Your task to perform on an android device: Open the calendar and show me this week's events? Image 0: 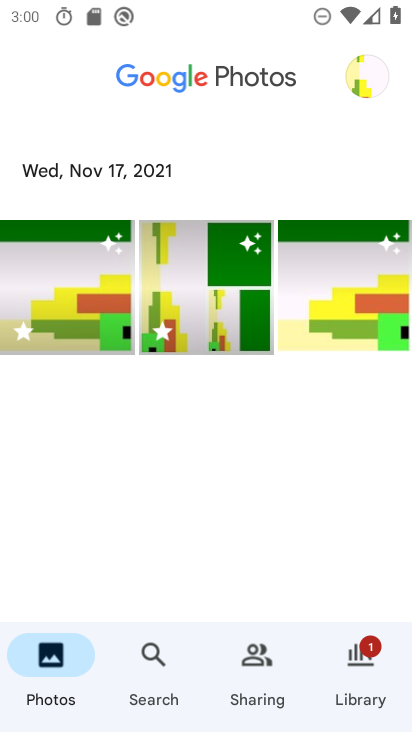
Step 0: drag from (168, 484) to (303, 256)
Your task to perform on an android device: Open the calendar and show me this week's events? Image 1: 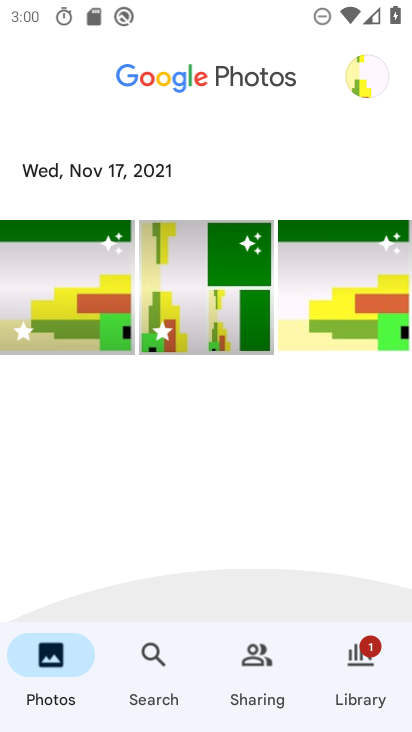
Step 1: drag from (314, 179) to (317, 658)
Your task to perform on an android device: Open the calendar and show me this week's events? Image 2: 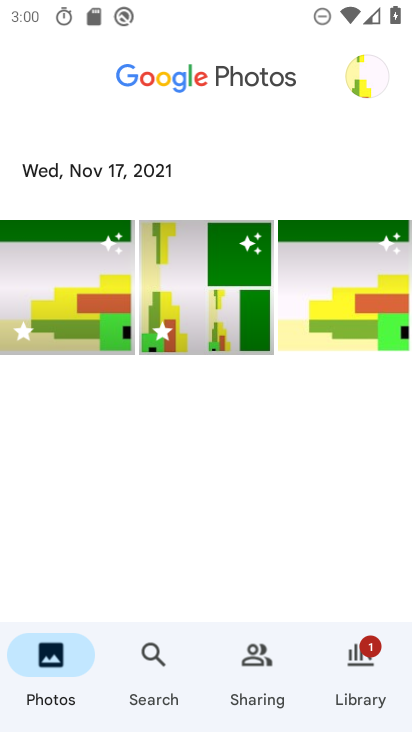
Step 2: press home button
Your task to perform on an android device: Open the calendar and show me this week's events? Image 3: 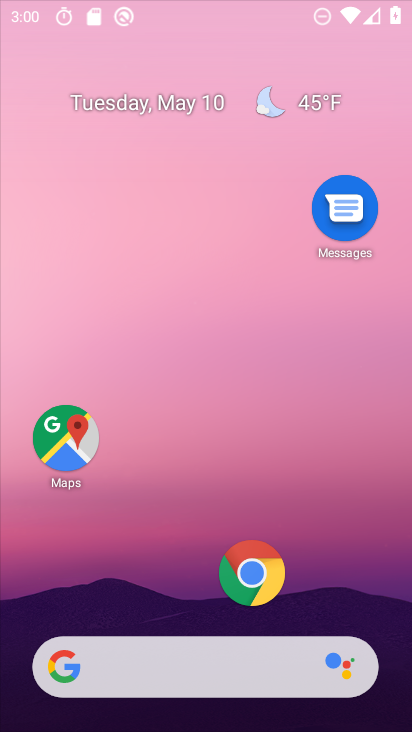
Step 3: drag from (183, 616) to (206, 291)
Your task to perform on an android device: Open the calendar and show me this week's events? Image 4: 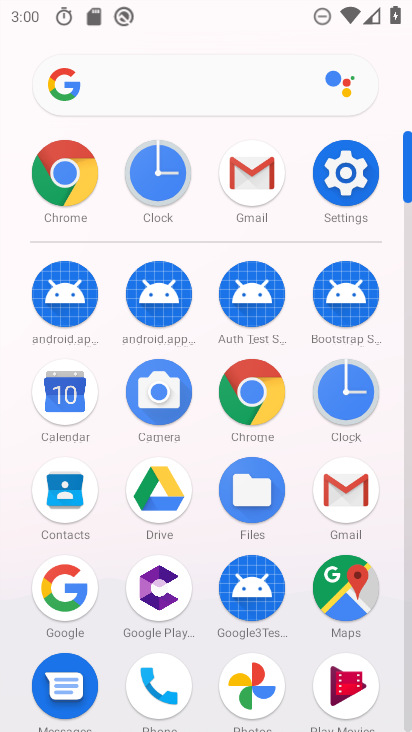
Step 4: click (69, 387)
Your task to perform on an android device: Open the calendar and show me this week's events? Image 5: 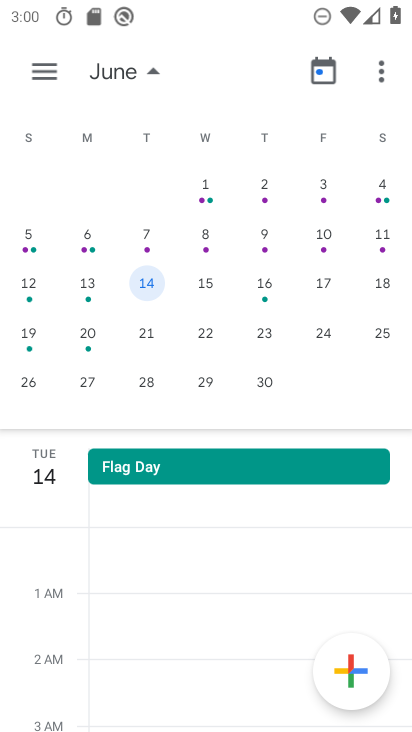
Step 5: drag from (210, 603) to (261, 294)
Your task to perform on an android device: Open the calendar and show me this week's events? Image 6: 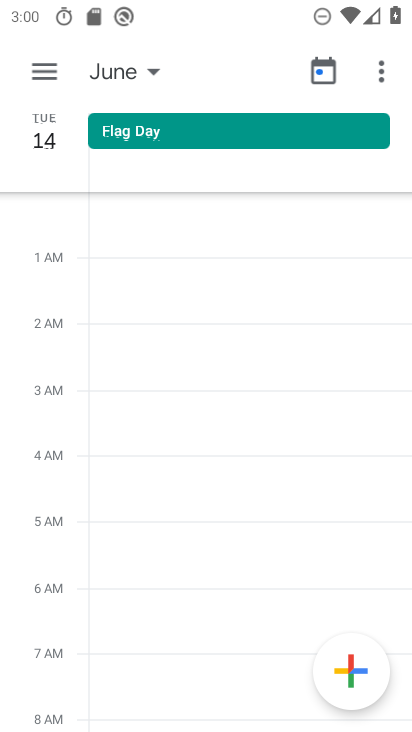
Step 6: drag from (163, 583) to (195, 346)
Your task to perform on an android device: Open the calendar and show me this week's events? Image 7: 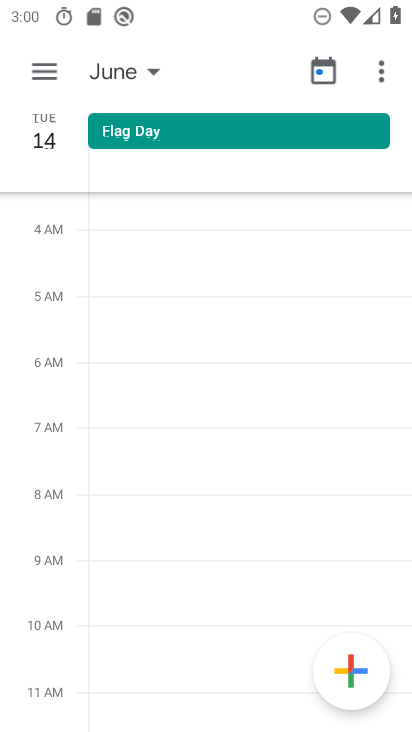
Step 7: drag from (201, 255) to (250, 708)
Your task to perform on an android device: Open the calendar and show me this week's events? Image 8: 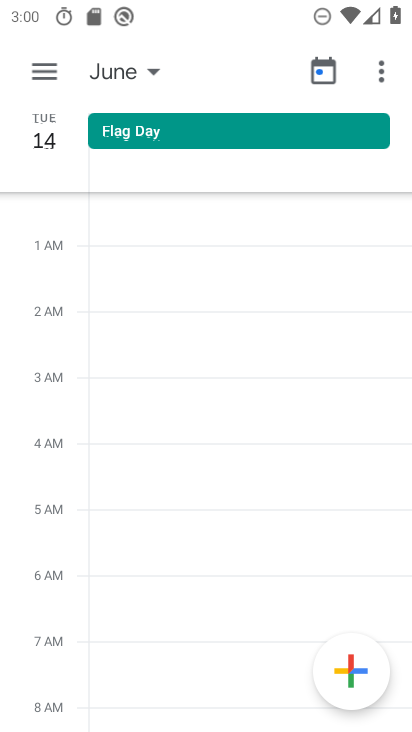
Step 8: click (141, 71)
Your task to perform on an android device: Open the calendar and show me this week's events? Image 9: 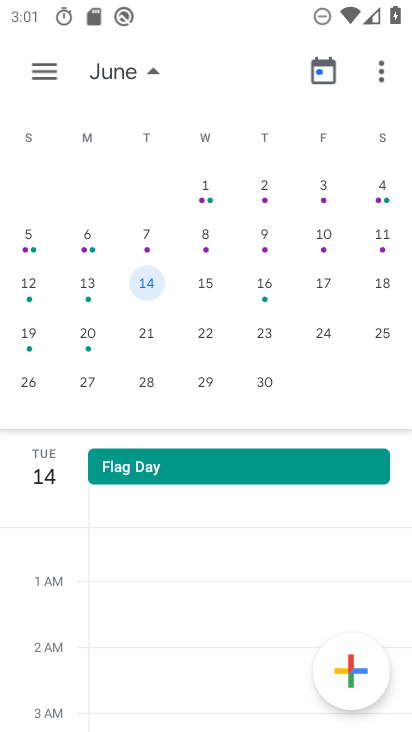
Step 9: click (141, 85)
Your task to perform on an android device: Open the calendar and show me this week's events? Image 10: 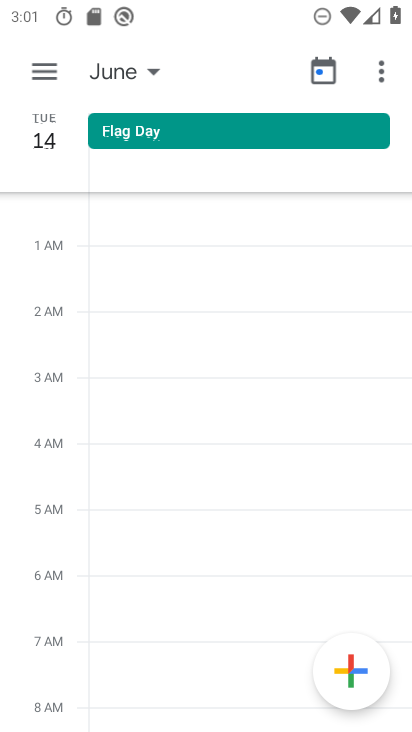
Step 10: click (145, 67)
Your task to perform on an android device: Open the calendar and show me this week's events? Image 11: 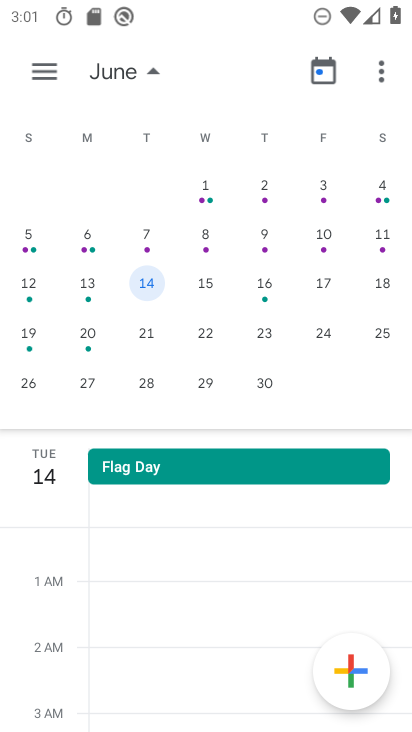
Step 11: drag from (67, 229) to (388, 289)
Your task to perform on an android device: Open the calendar and show me this week's events? Image 12: 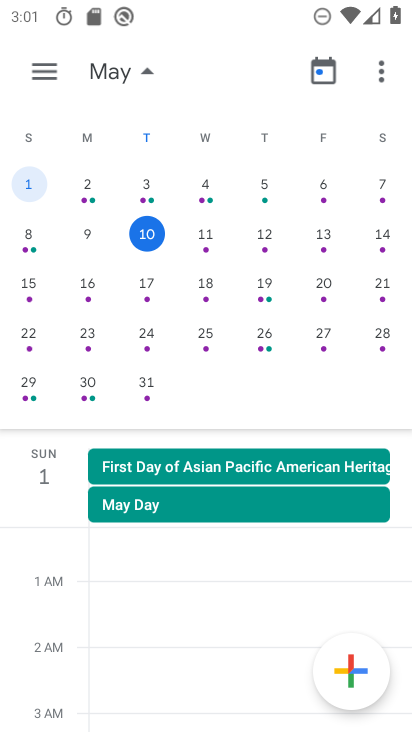
Step 12: click (328, 227)
Your task to perform on an android device: Open the calendar and show me this week's events? Image 13: 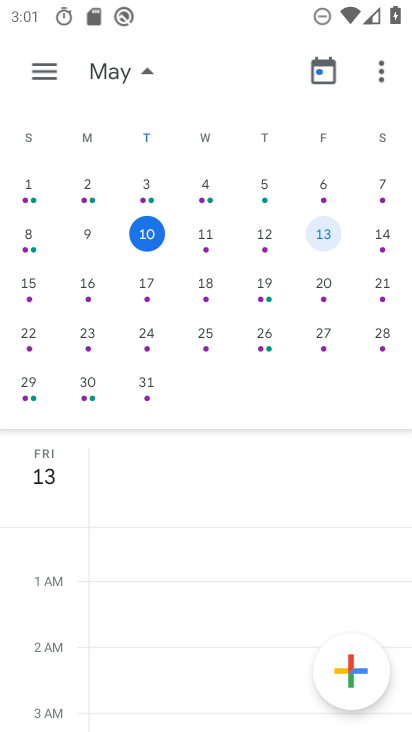
Step 13: task complete